Your task to perform on an android device: Open the stopwatch Image 0: 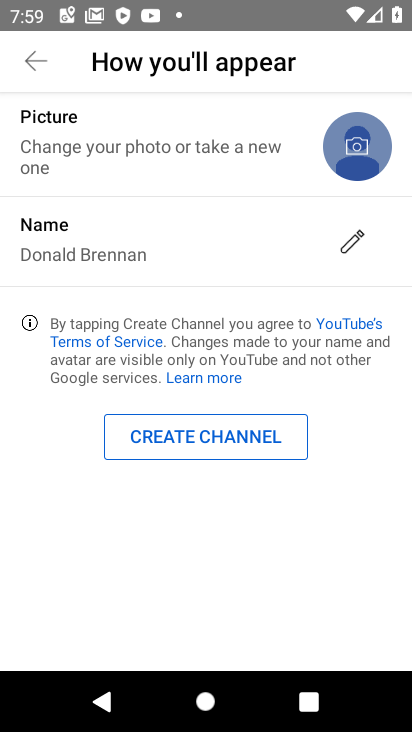
Step 0: press home button
Your task to perform on an android device: Open the stopwatch Image 1: 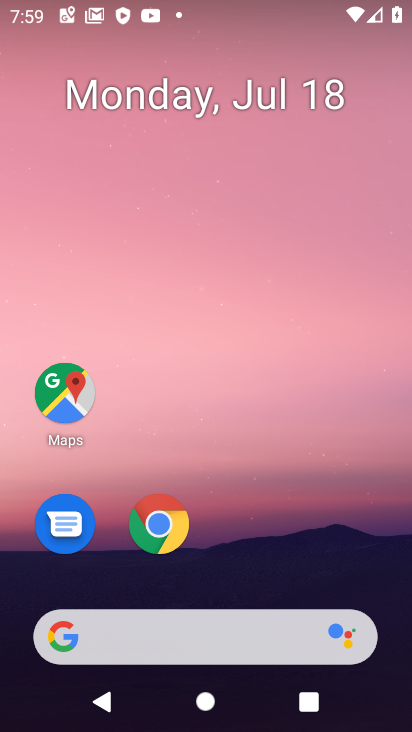
Step 1: drag from (238, 577) to (276, 85)
Your task to perform on an android device: Open the stopwatch Image 2: 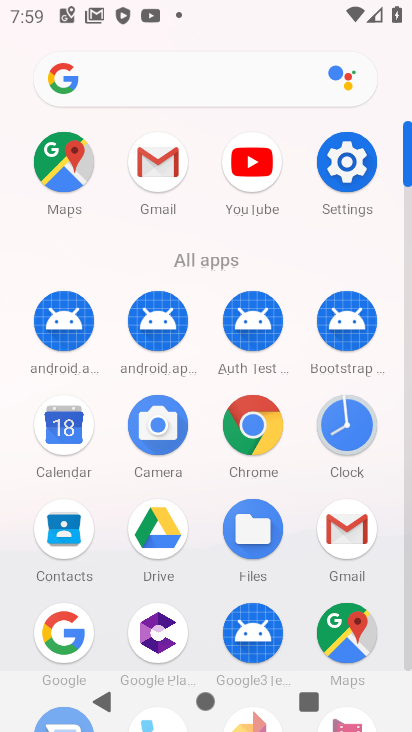
Step 2: click (352, 425)
Your task to perform on an android device: Open the stopwatch Image 3: 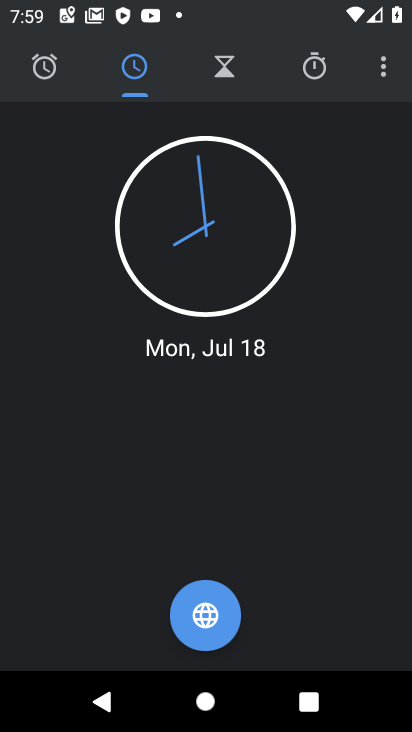
Step 3: click (326, 74)
Your task to perform on an android device: Open the stopwatch Image 4: 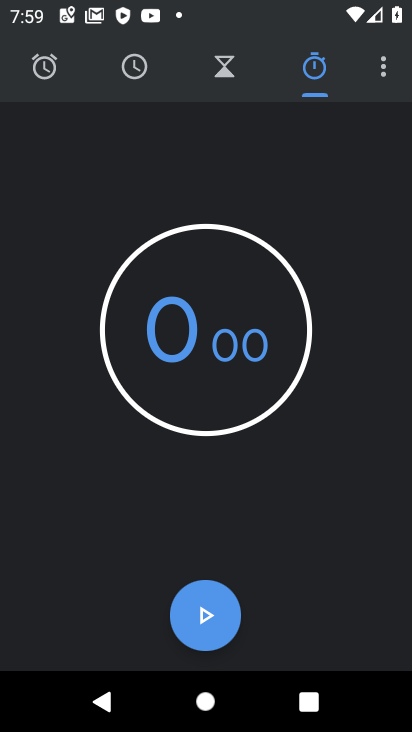
Step 4: task complete